Your task to perform on an android device: Open privacy settings Image 0: 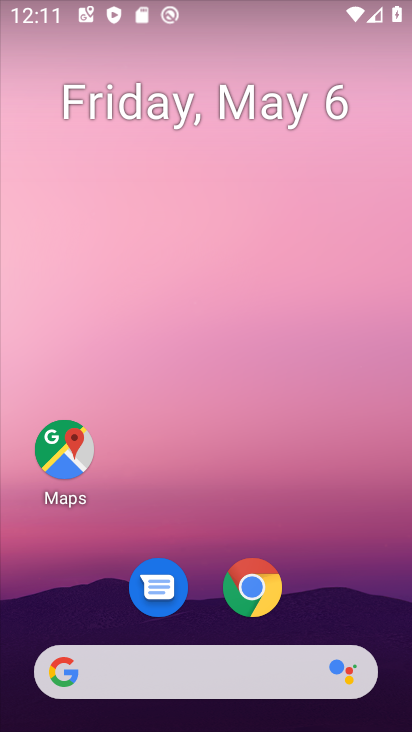
Step 0: drag from (235, 467) to (261, 84)
Your task to perform on an android device: Open privacy settings Image 1: 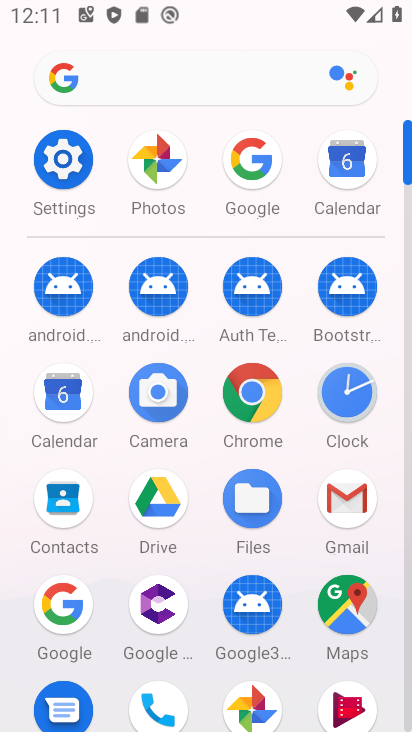
Step 1: click (71, 164)
Your task to perform on an android device: Open privacy settings Image 2: 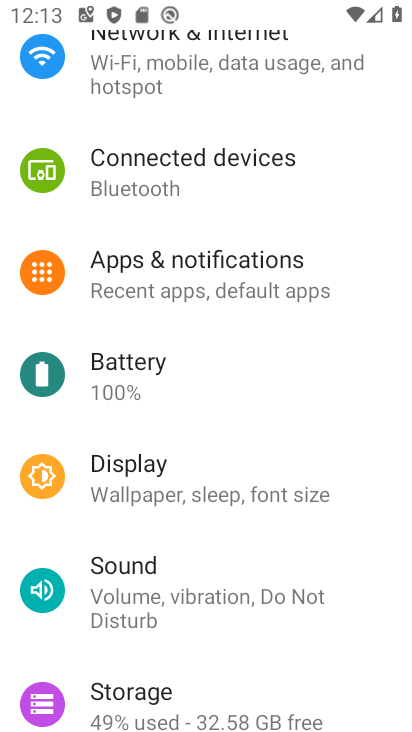
Step 2: drag from (204, 627) to (327, 118)
Your task to perform on an android device: Open privacy settings Image 3: 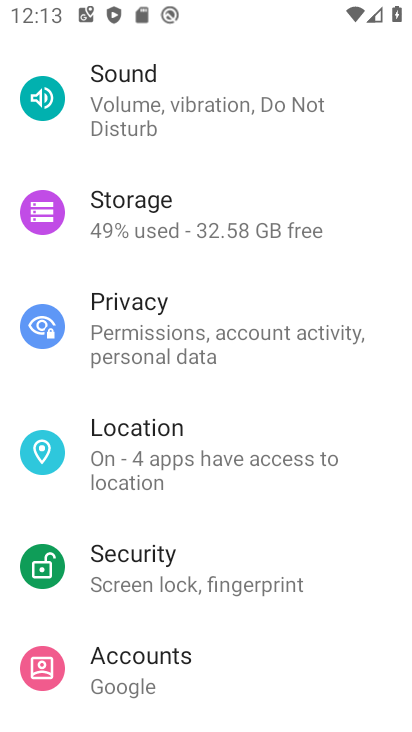
Step 3: click (115, 337)
Your task to perform on an android device: Open privacy settings Image 4: 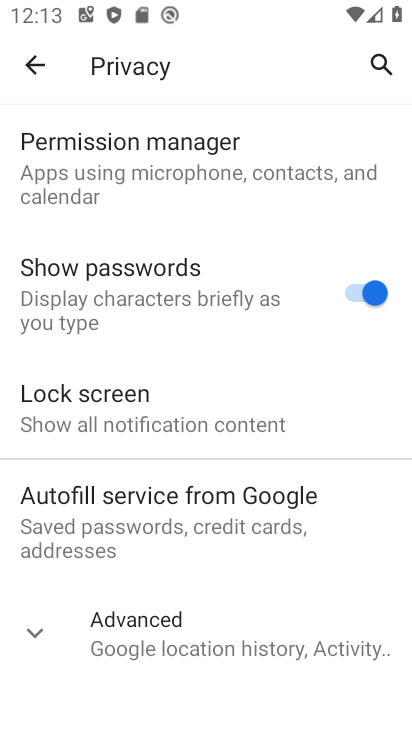
Step 4: task complete